Your task to perform on an android device: find photos in the google photos app Image 0: 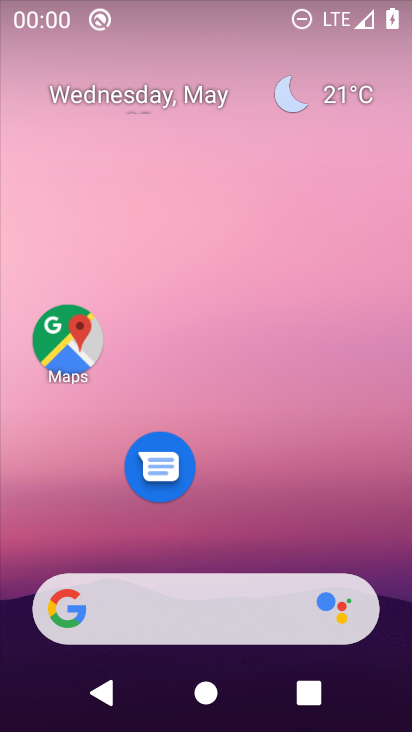
Step 0: drag from (216, 550) to (212, 137)
Your task to perform on an android device: find photos in the google photos app Image 1: 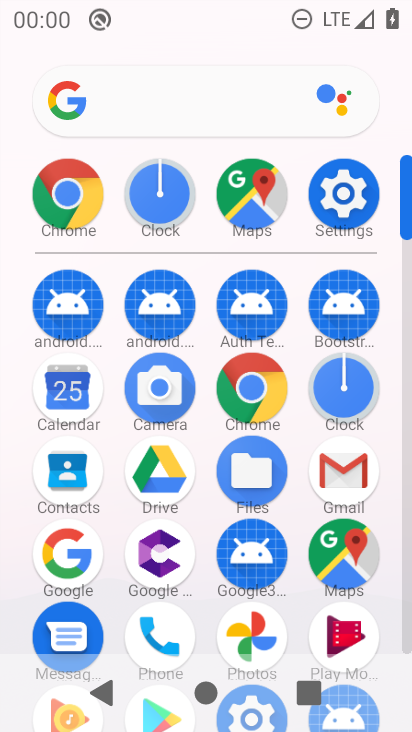
Step 1: drag from (205, 605) to (191, 199)
Your task to perform on an android device: find photos in the google photos app Image 2: 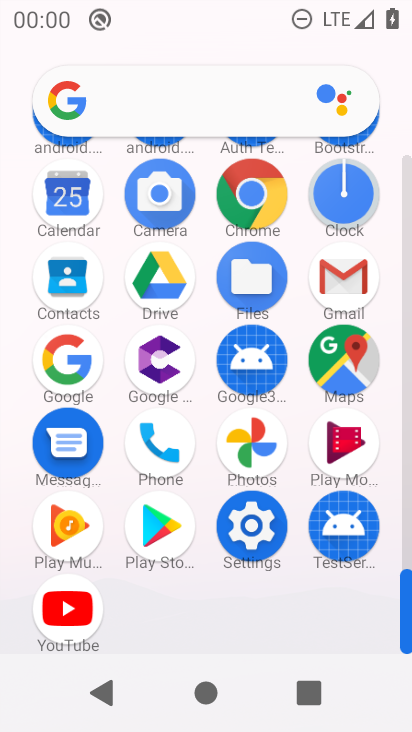
Step 2: click (259, 449)
Your task to perform on an android device: find photos in the google photos app Image 3: 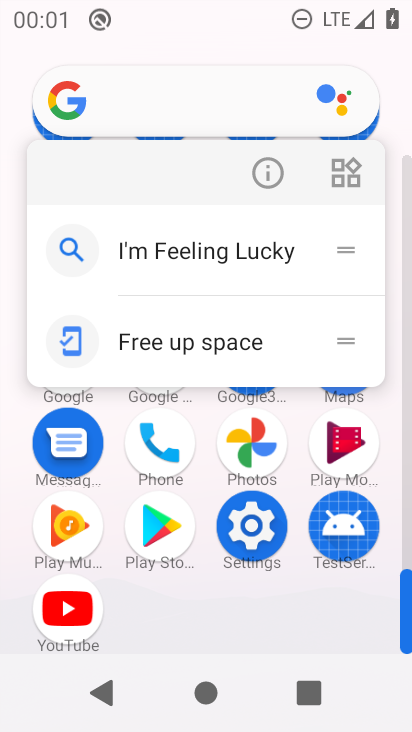
Step 3: click (265, 187)
Your task to perform on an android device: find photos in the google photos app Image 4: 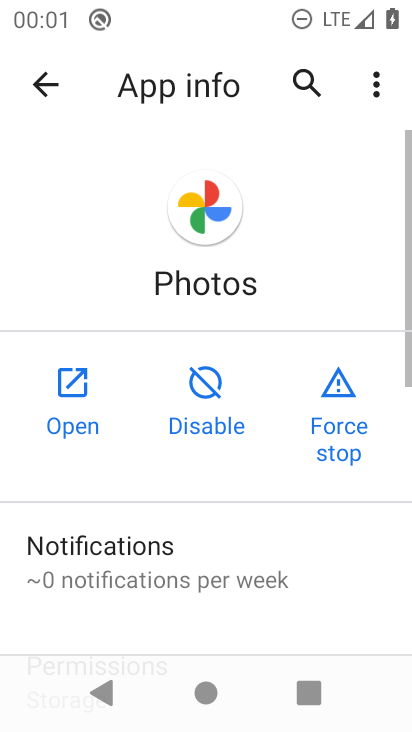
Step 4: click (50, 388)
Your task to perform on an android device: find photos in the google photos app Image 5: 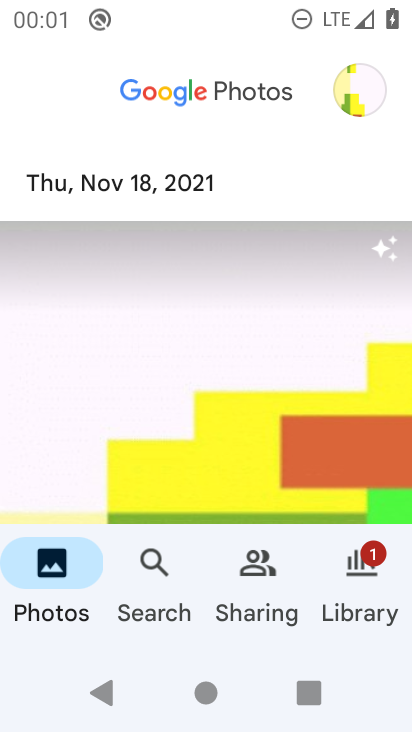
Step 5: drag from (221, 409) to (249, 59)
Your task to perform on an android device: find photos in the google photos app Image 6: 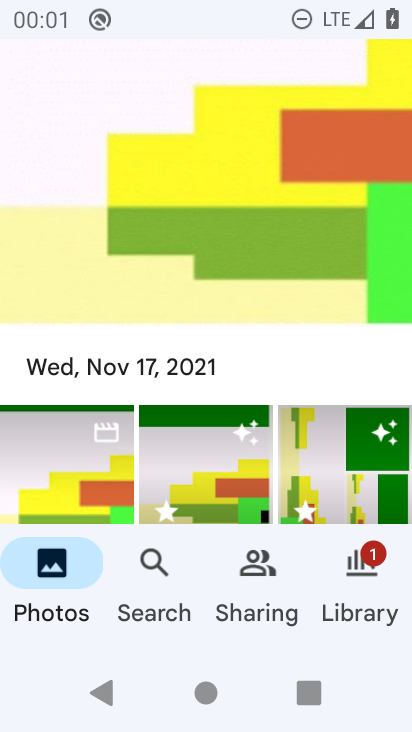
Step 6: drag from (219, 371) to (53, 371)
Your task to perform on an android device: find photos in the google photos app Image 7: 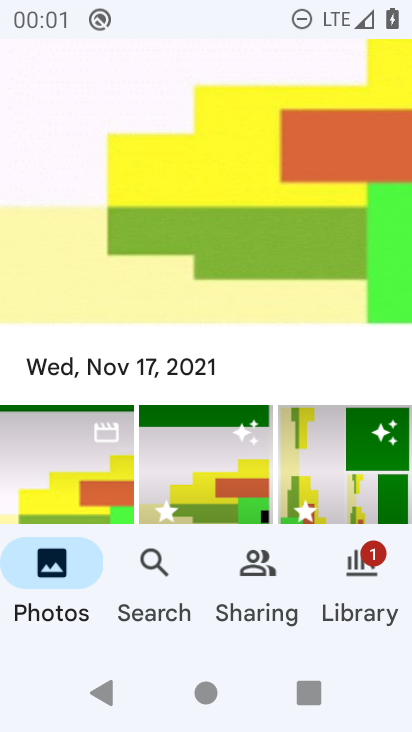
Step 7: click (82, 491)
Your task to perform on an android device: find photos in the google photos app Image 8: 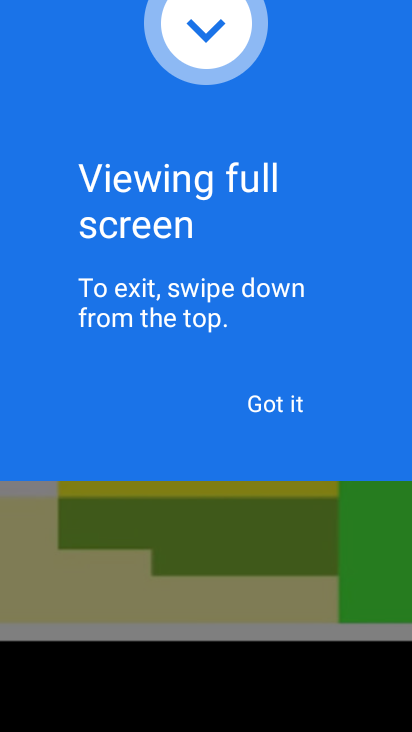
Step 8: drag from (352, 391) to (8, 518)
Your task to perform on an android device: find photos in the google photos app Image 9: 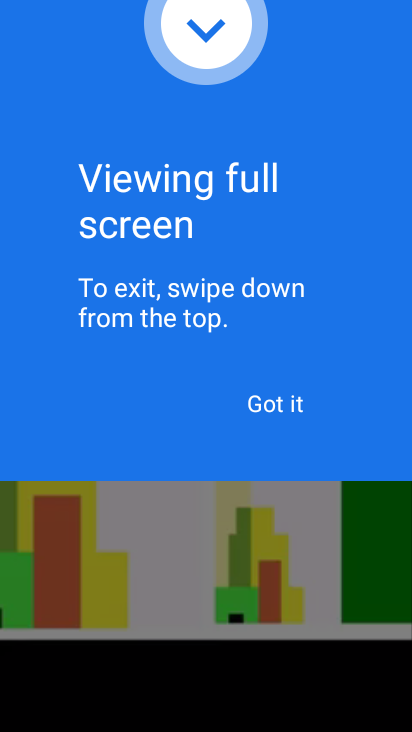
Step 9: click (293, 402)
Your task to perform on an android device: find photos in the google photos app Image 10: 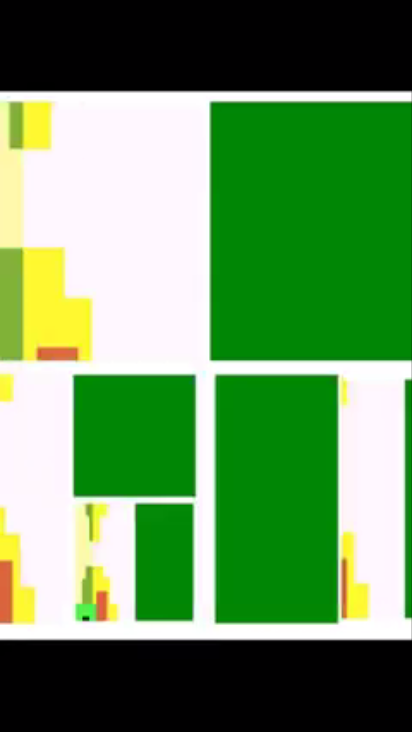
Step 10: task complete